Your task to perform on an android device: Open Chrome and go to settings Image 0: 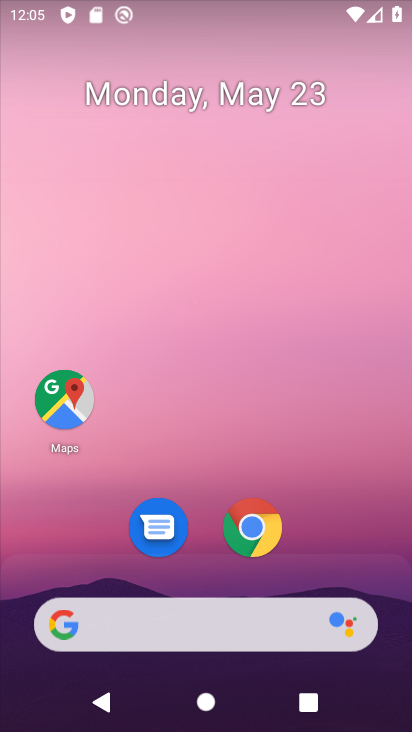
Step 0: drag from (246, 23) to (174, 17)
Your task to perform on an android device: Open Chrome and go to settings Image 1: 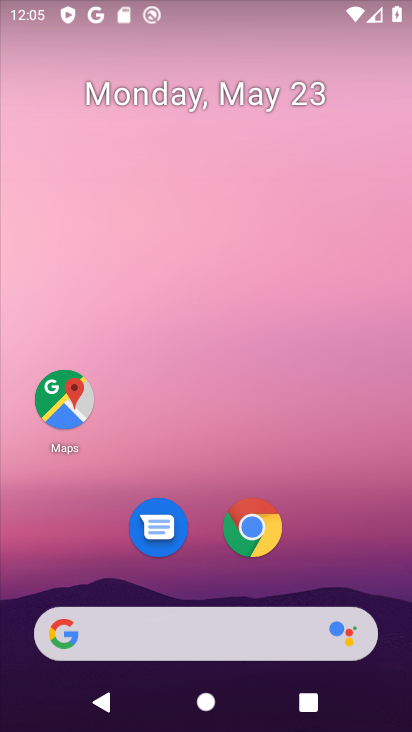
Step 1: click (227, 44)
Your task to perform on an android device: Open Chrome and go to settings Image 2: 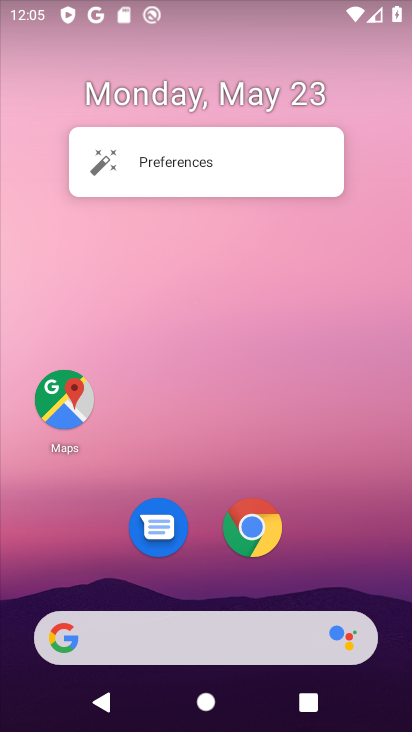
Step 2: drag from (231, 363) to (158, 43)
Your task to perform on an android device: Open Chrome and go to settings Image 3: 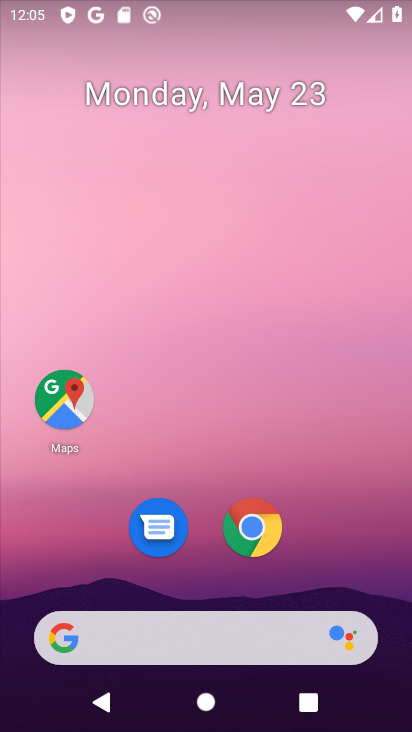
Step 3: drag from (297, 622) to (269, 38)
Your task to perform on an android device: Open Chrome and go to settings Image 4: 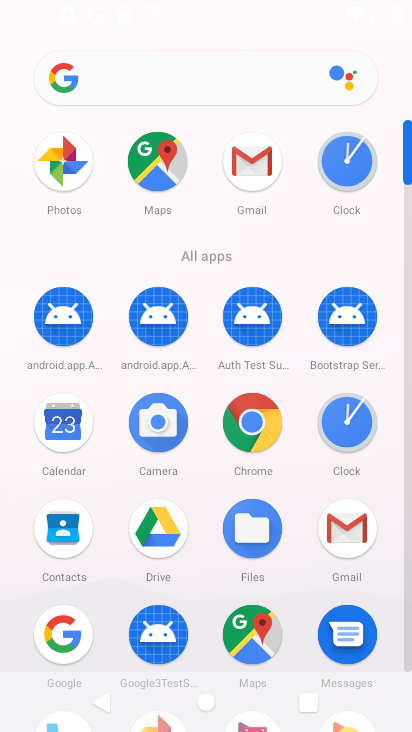
Step 4: drag from (257, 526) to (248, 97)
Your task to perform on an android device: Open Chrome and go to settings Image 5: 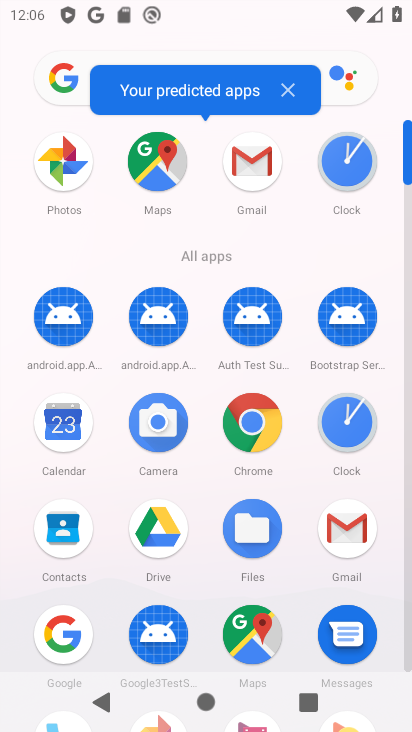
Step 5: click (250, 423)
Your task to perform on an android device: Open Chrome and go to settings Image 6: 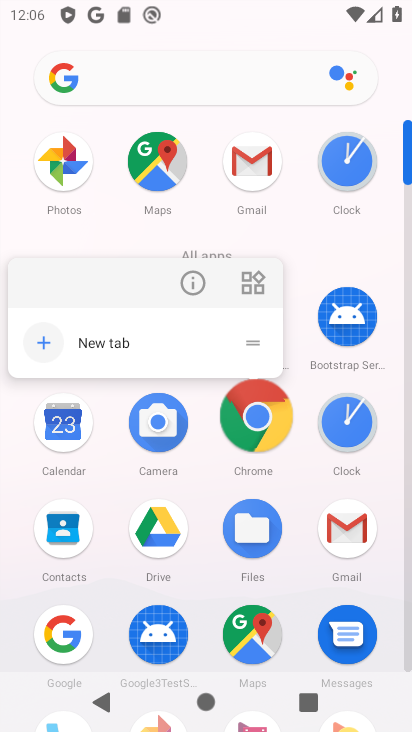
Step 6: click (254, 416)
Your task to perform on an android device: Open Chrome and go to settings Image 7: 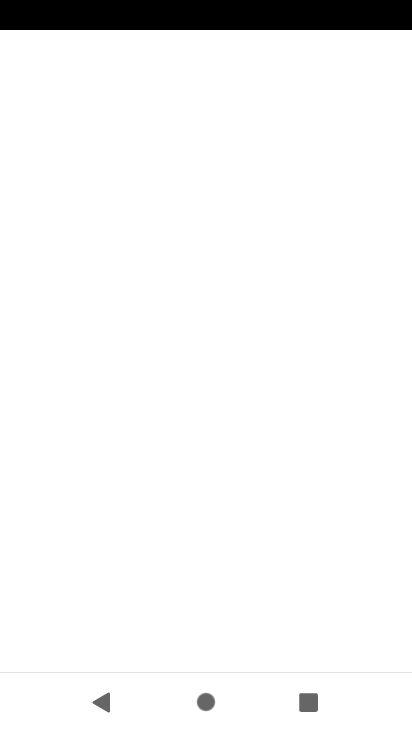
Step 7: click (248, 431)
Your task to perform on an android device: Open Chrome and go to settings Image 8: 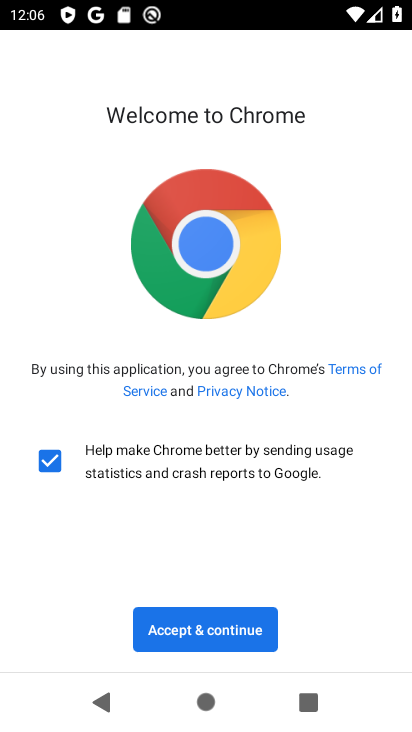
Step 8: click (192, 639)
Your task to perform on an android device: Open Chrome and go to settings Image 9: 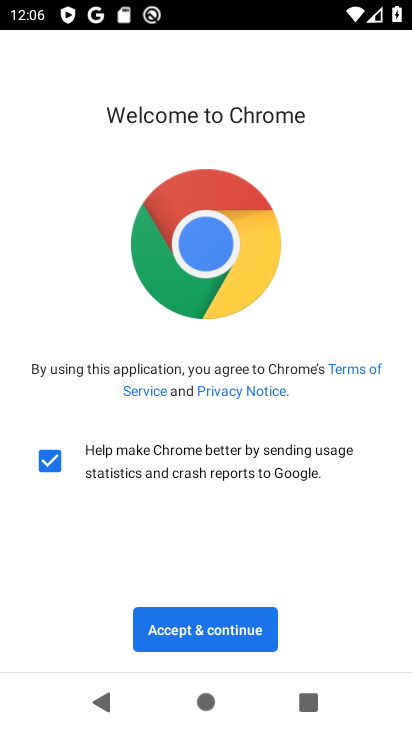
Step 9: click (192, 639)
Your task to perform on an android device: Open Chrome and go to settings Image 10: 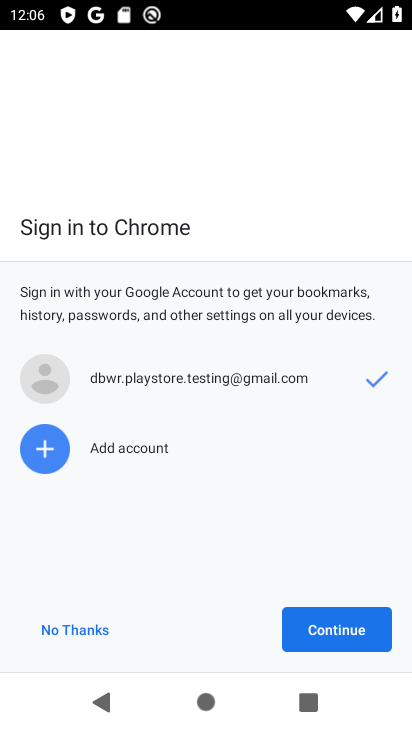
Step 10: click (191, 633)
Your task to perform on an android device: Open Chrome and go to settings Image 11: 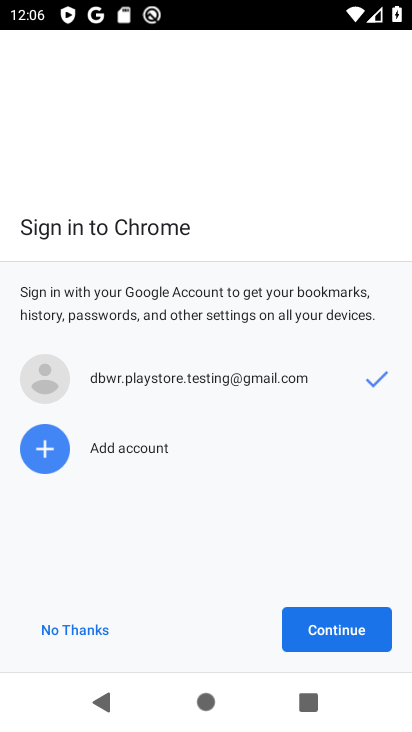
Step 11: click (331, 628)
Your task to perform on an android device: Open Chrome and go to settings Image 12: 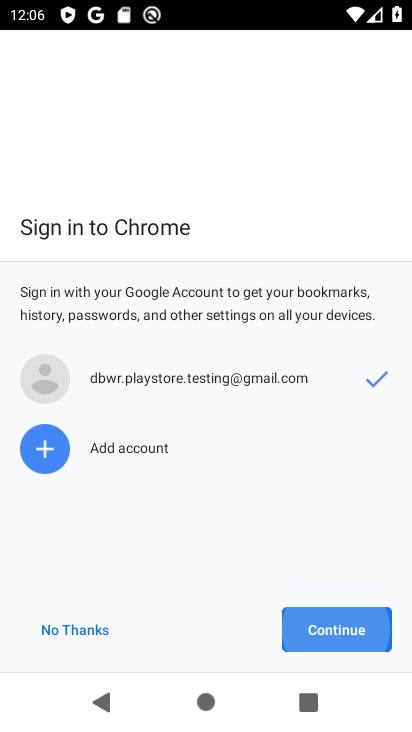
Step 12: click (331, 626)
Your task to perform on an android device: Open Chrome and go to settings Image 13: 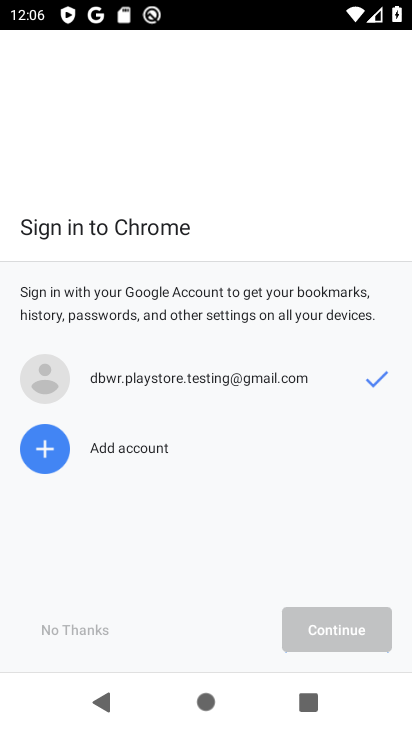
Step 13: click (331, 625)
Your task to perform on an android device: Open Chrome and go to settings Image 14: 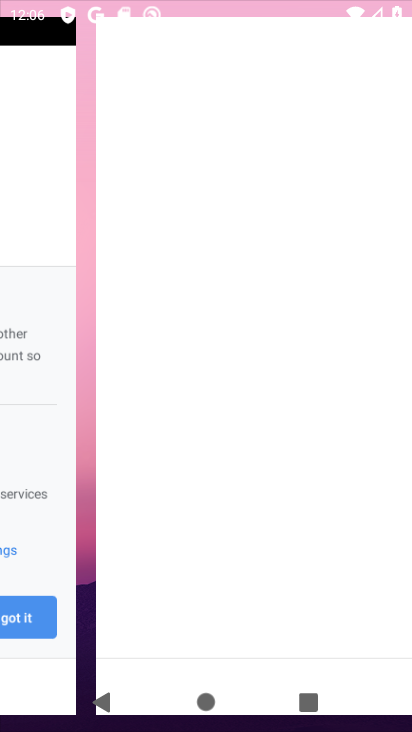
Step 14: click (331, 624)
Your task to perform on an android device: Open Chrome and go to settings Image 15: 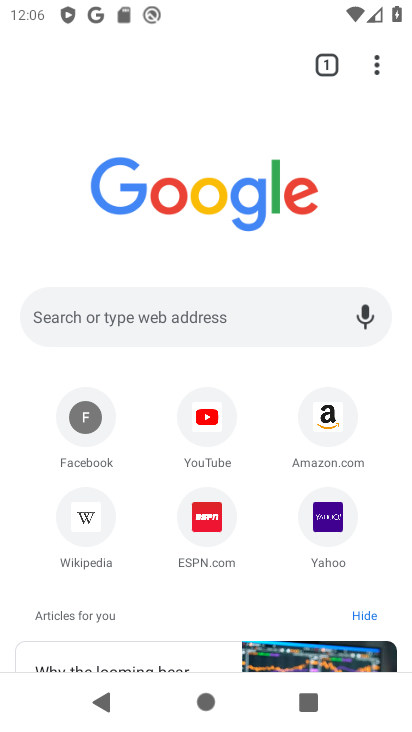
Step 15: drag from (375, 65) to (126, 540)
Your task to perform on an android device: Open Chrome and go to settings Image 16: 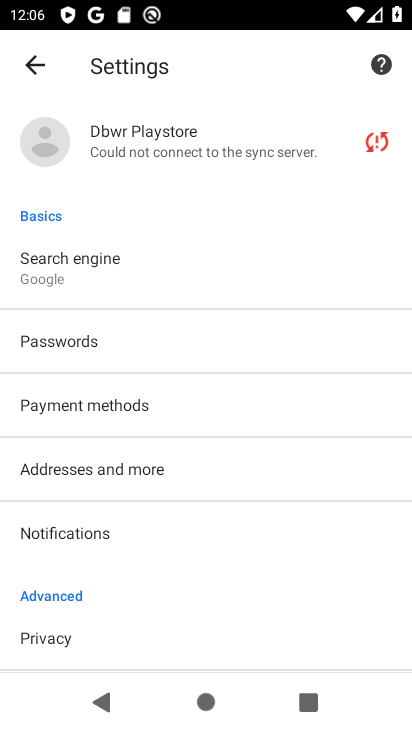
Step 16: click (29, 64)
Your task to perform on an android device: Open Chrome and go to settings Image 17: 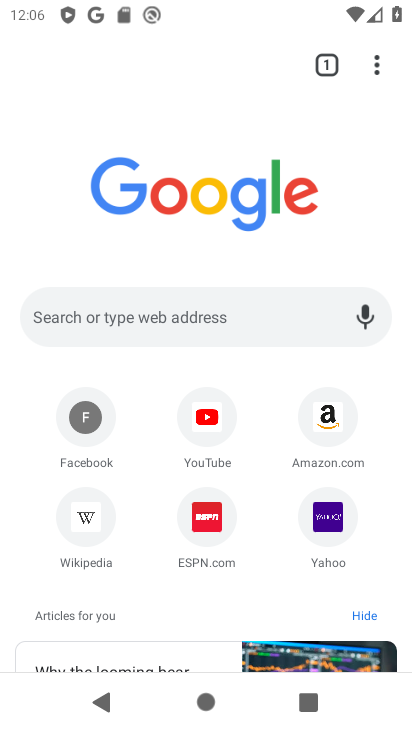
Step 17: task complete